Your task to perform on an android device: open a bookmark in the chrome app Image 0: 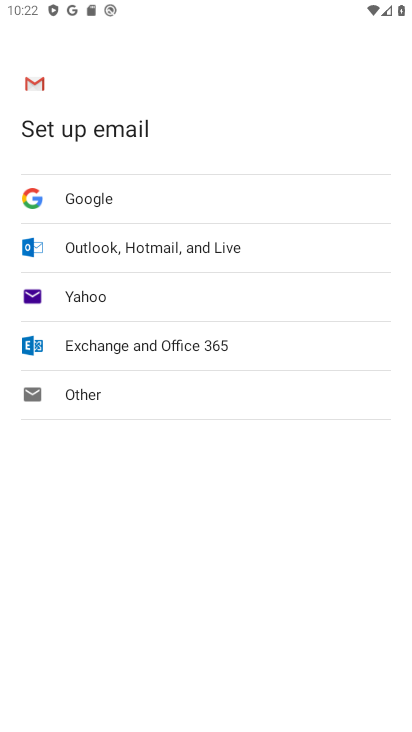
Step 0: press home button
Your task to perform on an android device: open a bookmark in the chrome app Image 1: 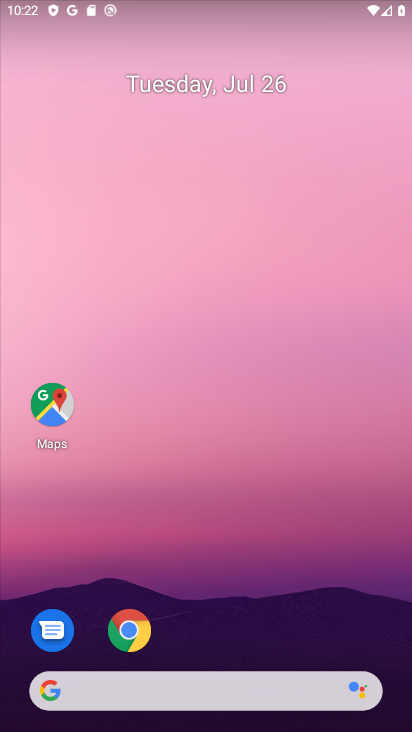
Step 1: click (140, 633)
Your task to perform on an android device: open a bookmark in the chrome app Image 2: 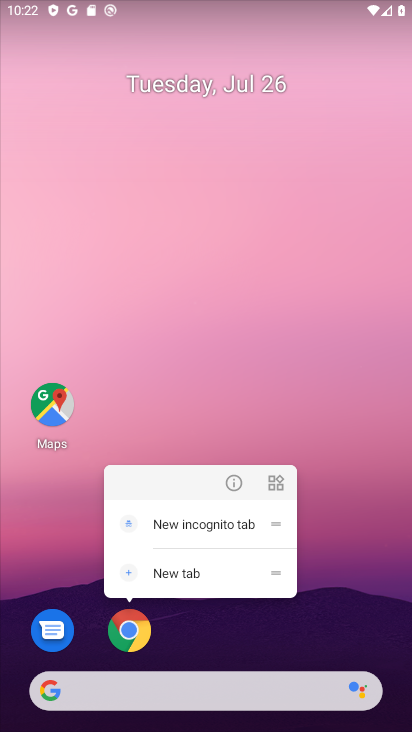
Step 2: click (123, 629)
Your task to perform on an android device: open a bookmark in the chrome app Image 3: 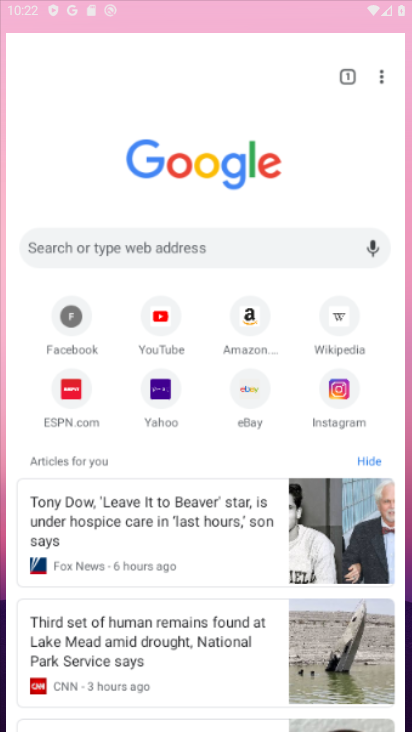
Step 3: click (123, 629)
Your task to perform on an android device: open a bookmark in the chrome app Image 4: 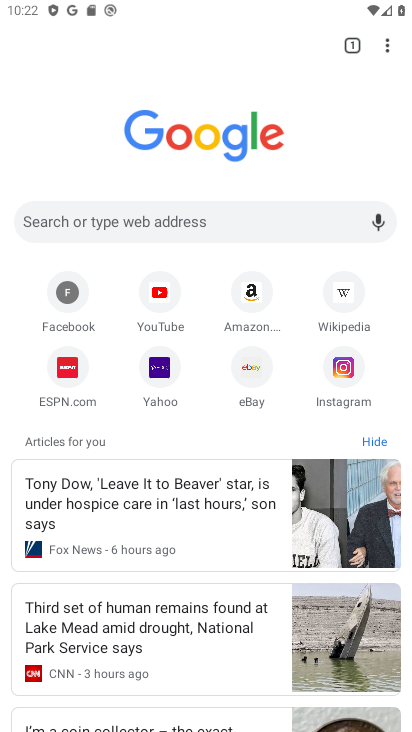
Step 4: click (391, 49)
Your task to perform on an android device: open a bookmark in the chrome app Image 5: 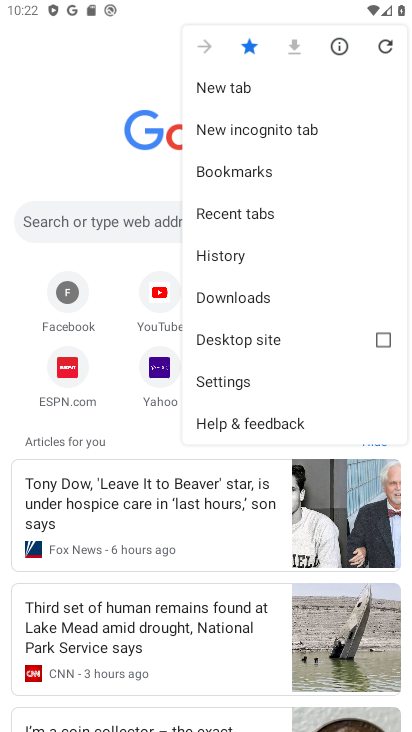
Step 5: click (235, 165)
Your task to perform on an android device: open a bookmark in the chrome app Image 6: 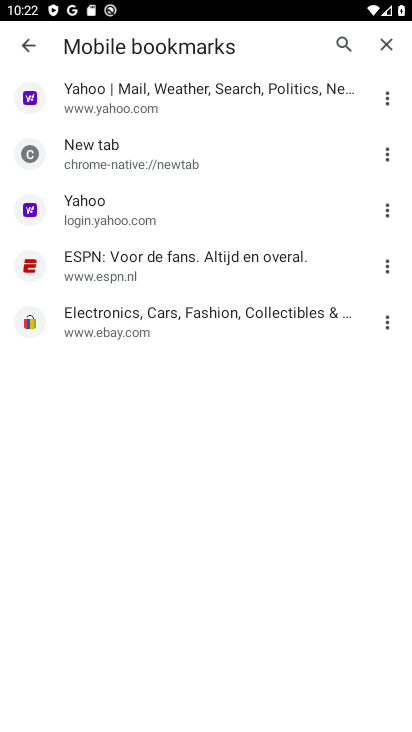
Step 6: task complete